Your task to perform on an android device: When is my next meeting? Image 0: 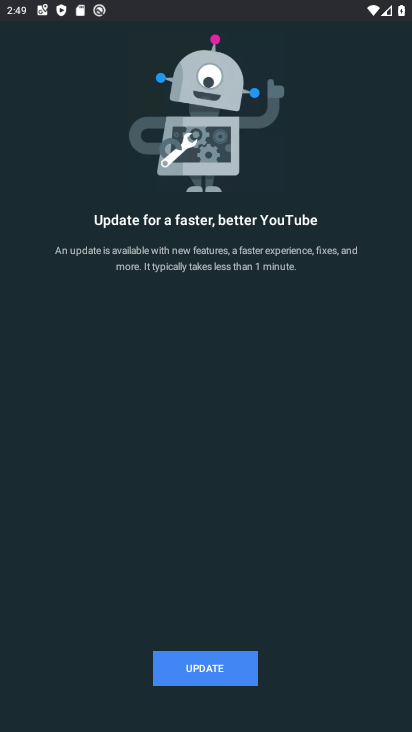
Step 0: press back button
Your task to perform on an android device: When is my next meeting? Image 1: 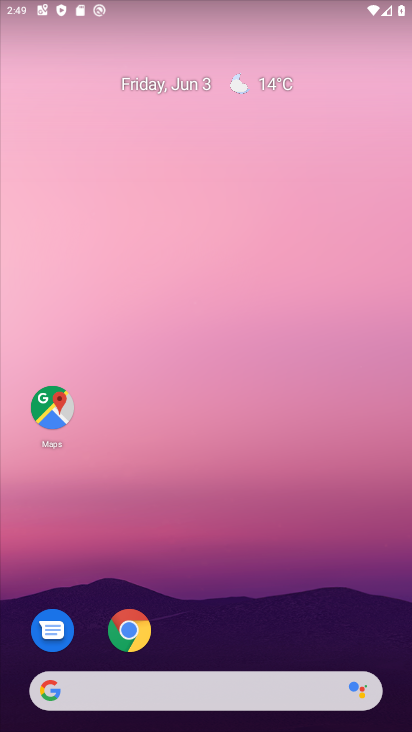
Step 1: drag from (240, 635) to (222, 259)
Your task to perform on an android device: When is my next meeting? Image 2: 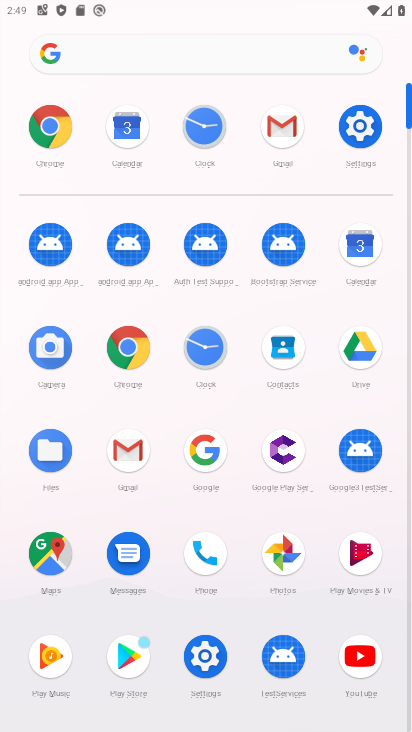
Step 2: click (118, 136)
Your task to perform on an android device: When is my next meeting? Image 3: 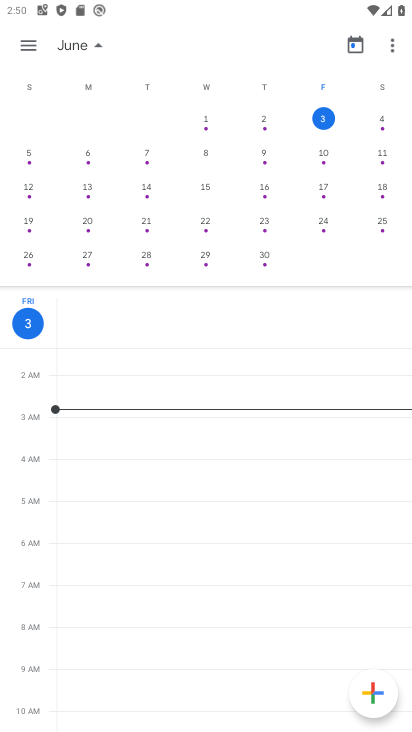
Step 3: click (39, 47)
Your task to perform on an android device: When is my next meeting? Image 4: 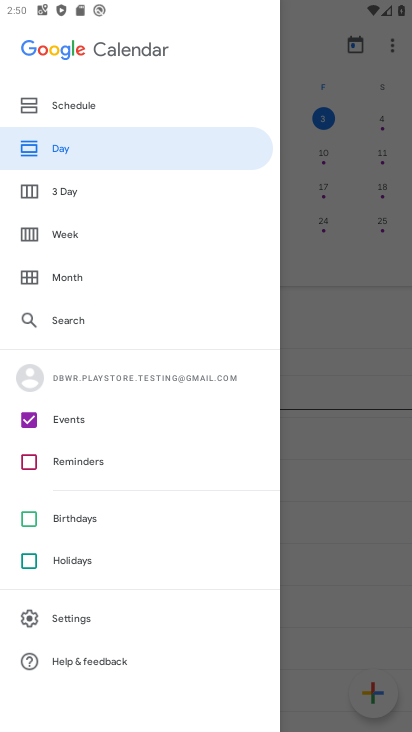
Step 4: click (97, 101)
Your task to perform on an android device: When is my next meeting? Image 5: 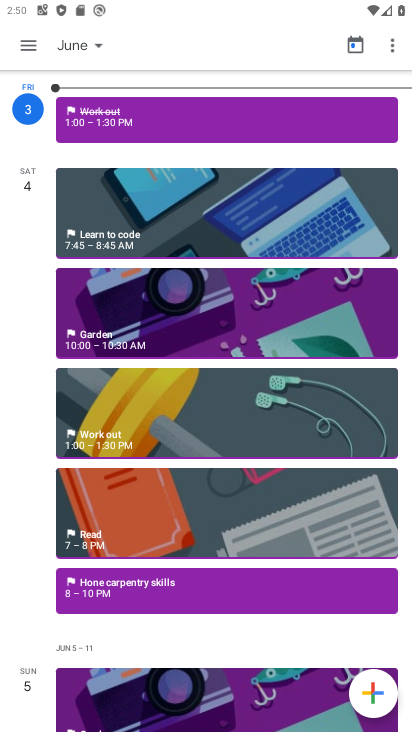
Step 5: task complete